Your task to perform on an android device: change notifications settings Image 0: 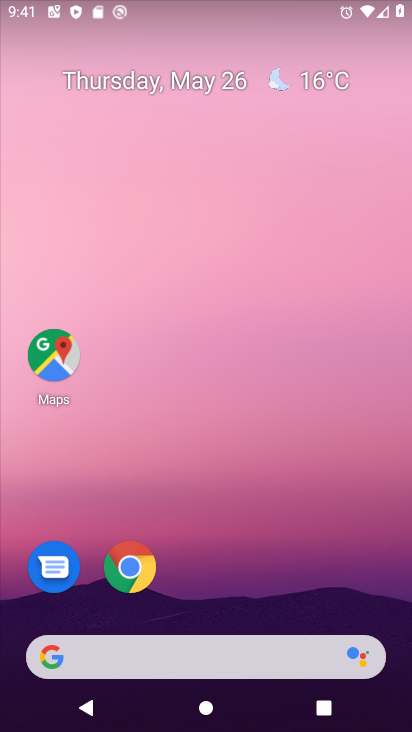
Step 0: drag from (401, 690) to (378, 197)
Your task to perform on an android device: change notifications settings Image 1: 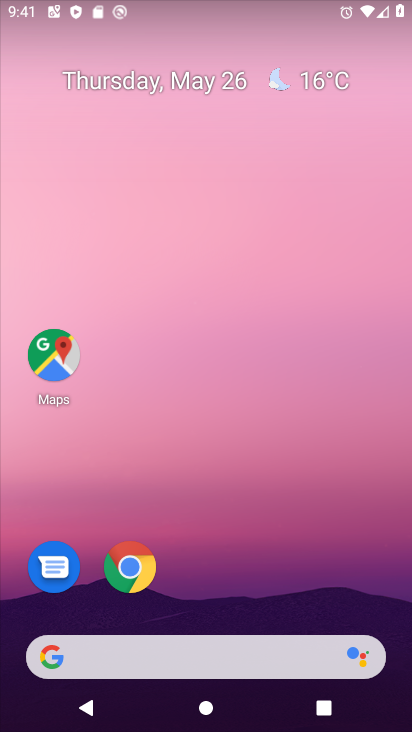
Step 1: drag from (403, 684) to (381, 90)
Your task to perform on an android device: change notifications settings Image 2: 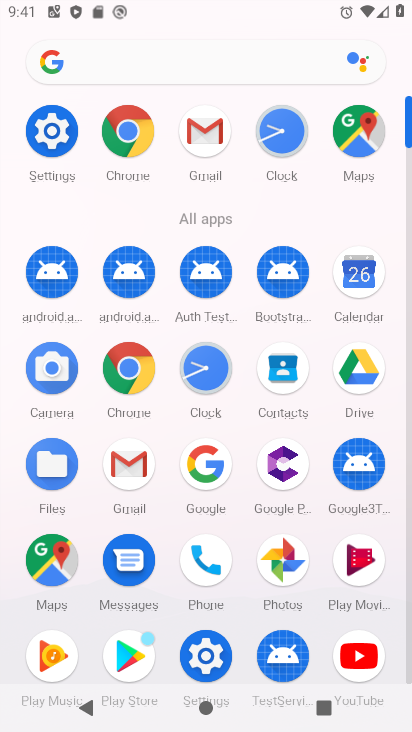
Step 2: click (52, 133)
Your task to perform on an android device: change notifications settings Image 3: 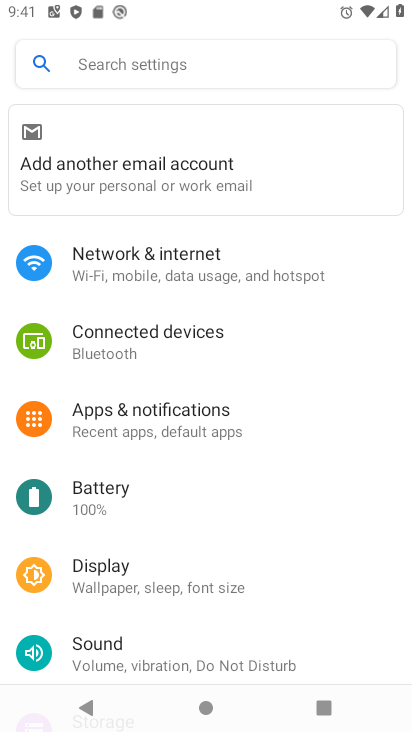
Step 3: click (129, 427)
Your task to perform on an android device: change notifications settings Image 4: 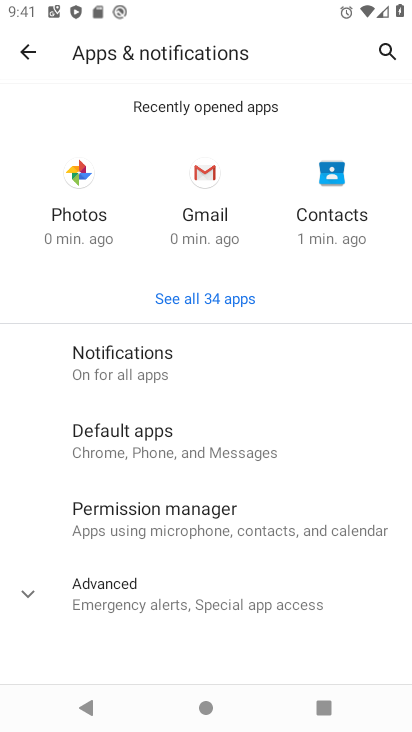
Step 4: click (123, 369)
Your task to perform on an android device: change notifications settings Image 5: 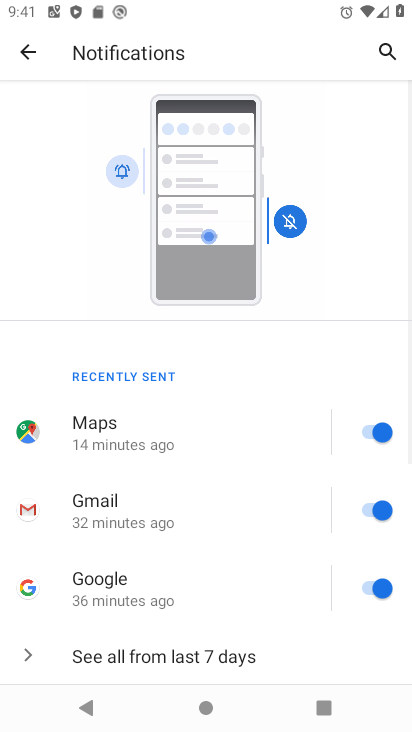
Step 5: click (366, 429)
Your task to perform on an android device: change notifications settings Image 6: 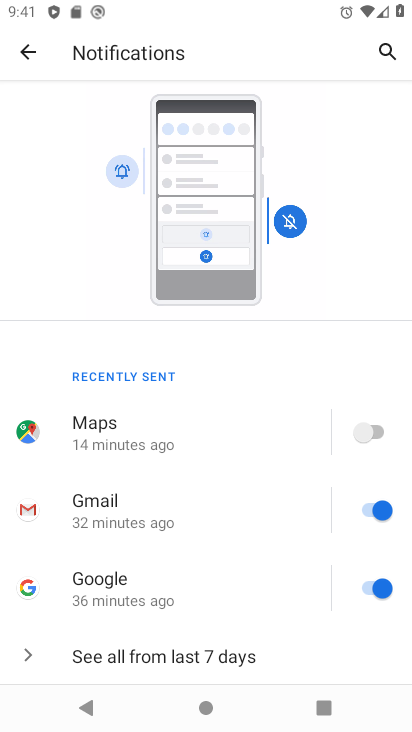
Step 6: click (371, 506)
Your task to perform on an android device: change notifications settings Image 7: 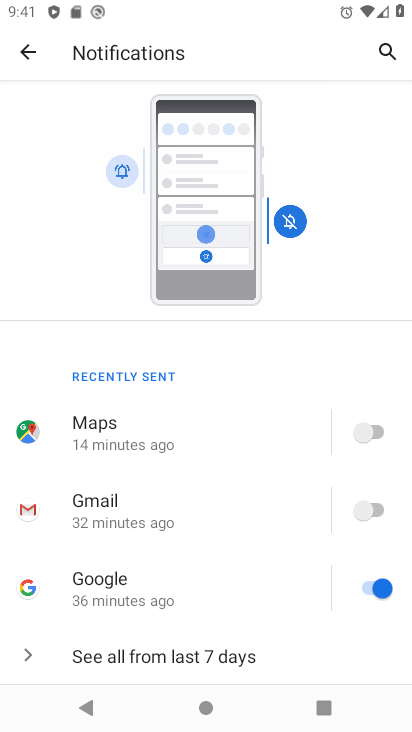
Step 7: click (361, 591)
Your task to perform on an android device: change notifications settings Image 8: 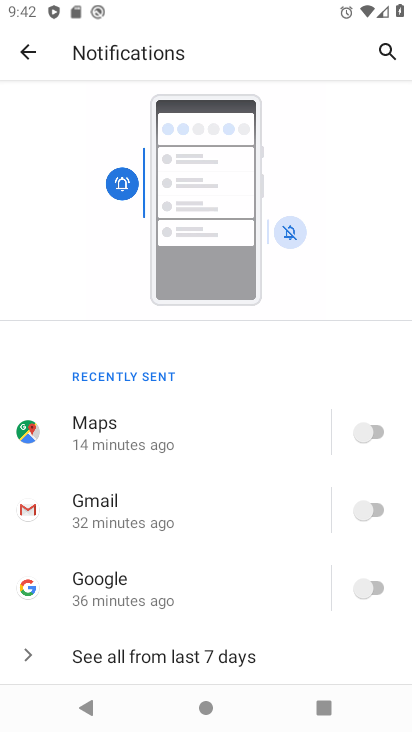
Step 8: task complete